Your task to perform on an android device: Open calendar and show me the first week of next month Image 0: 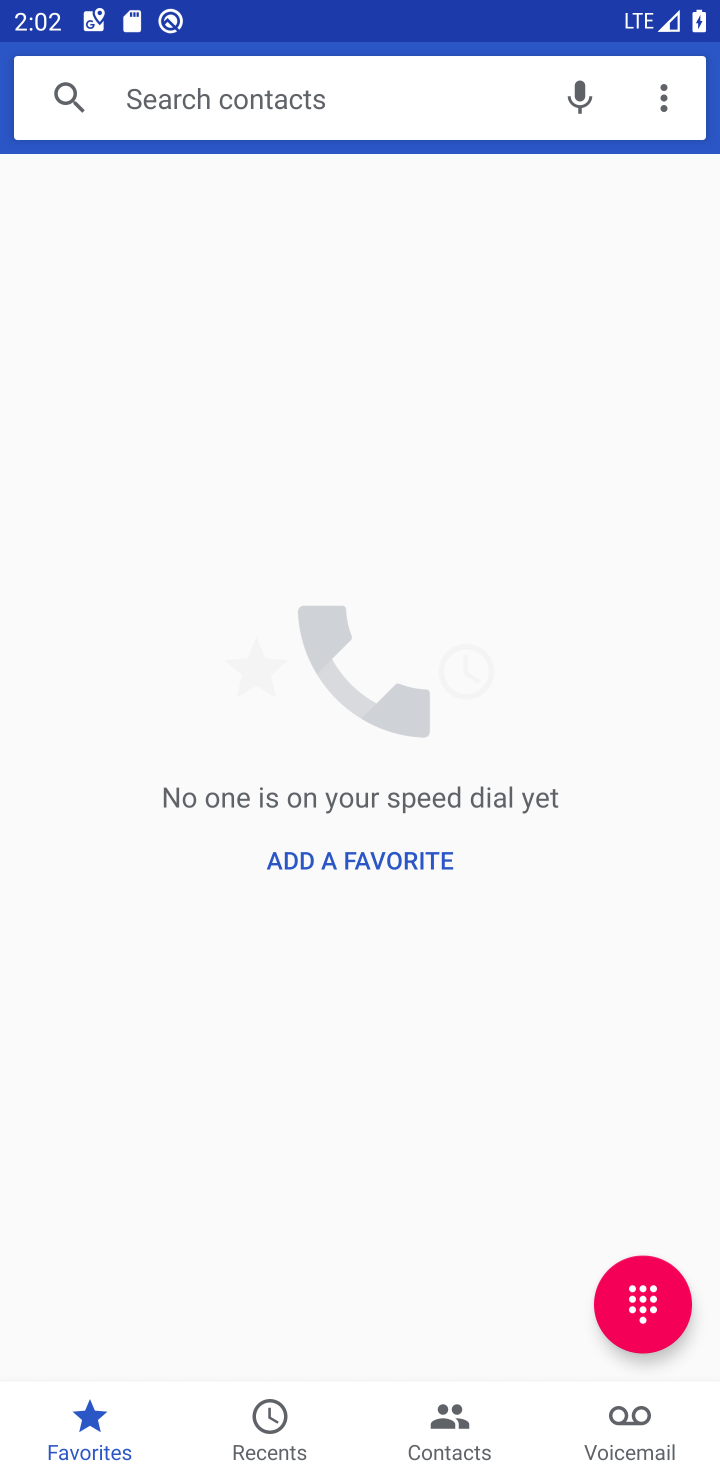
Step 0: press home button
Your task to perform on an android device: Open calendar and show me the first week of next month Image 1: 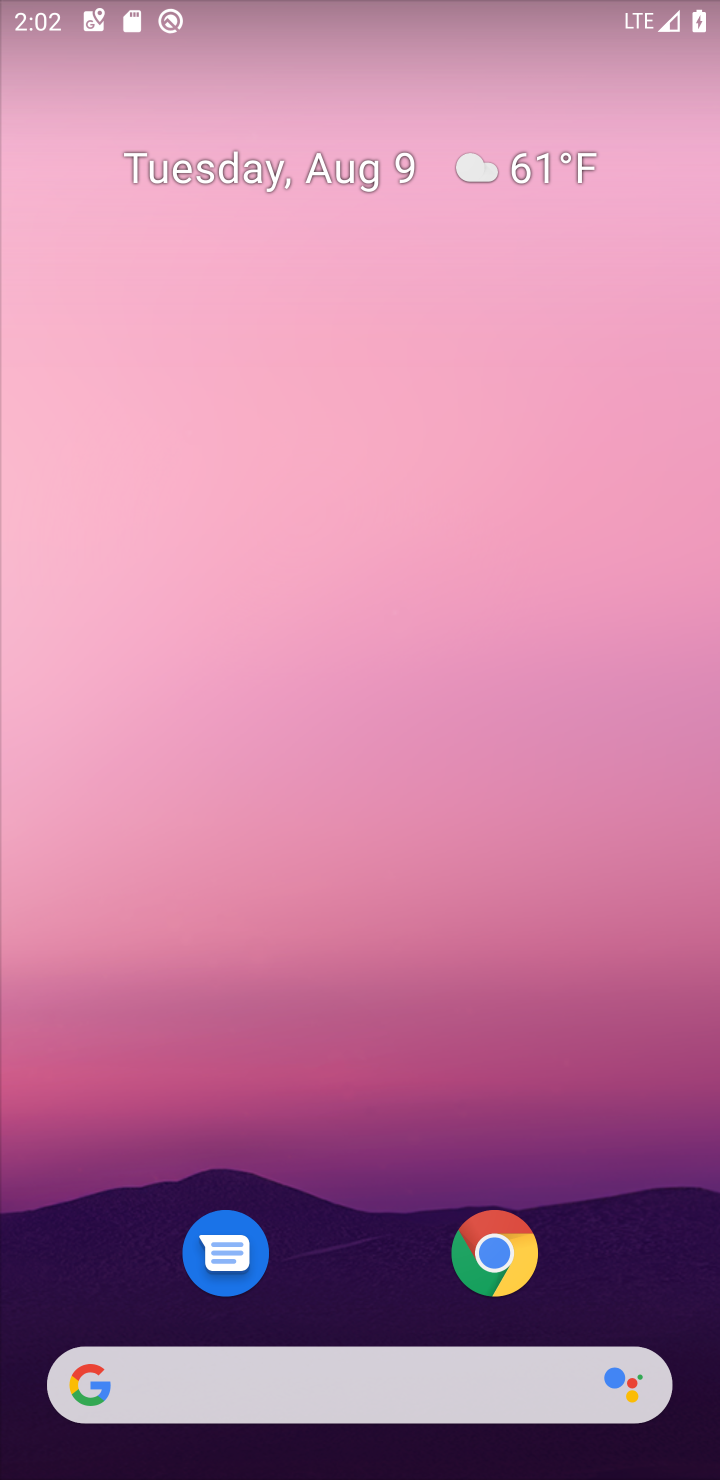
Step 1: drag from (571, 939) to (375, 2)
Your task to perform on an android device: Open calendar and show me the first week of next month Image 2: 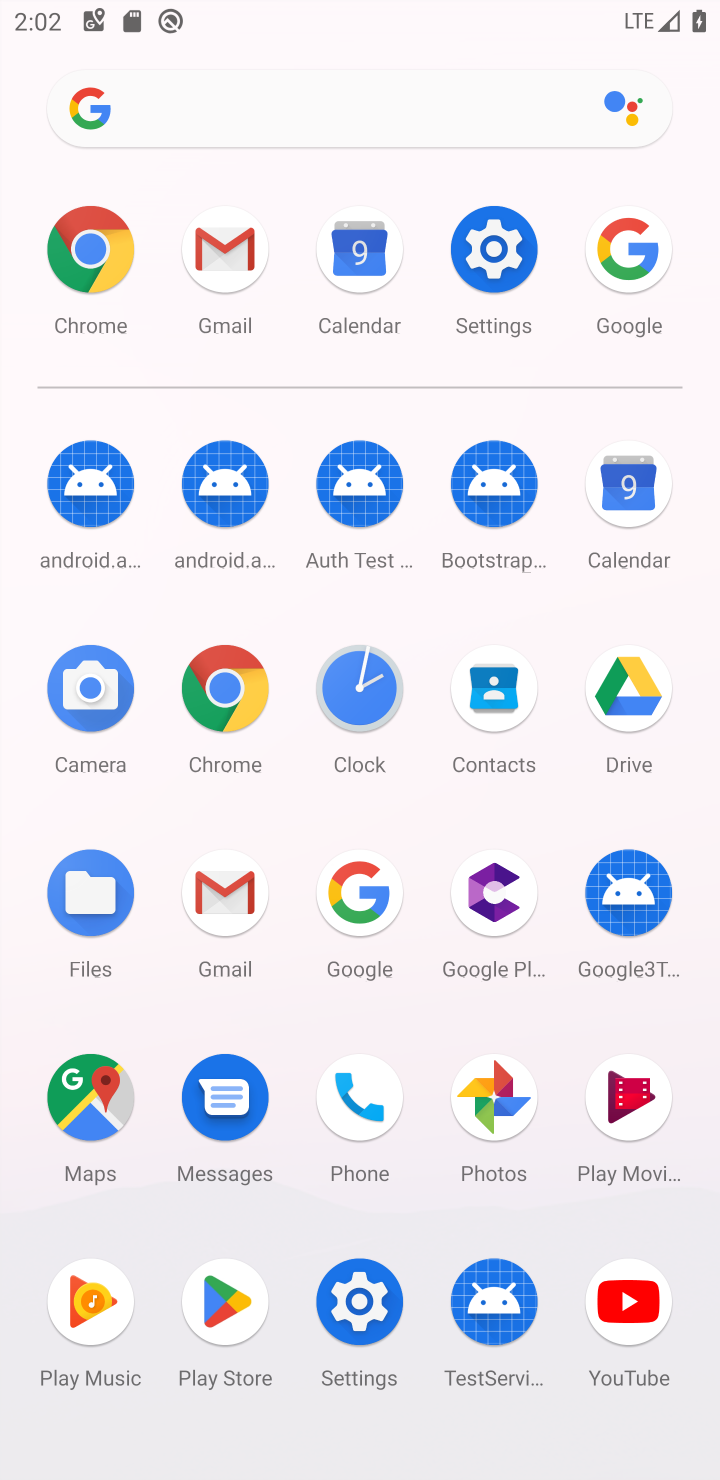
Step 2: click (613, 500)
Your task to perform on an android device: Open calendar and show me the first week of next month Image 3: 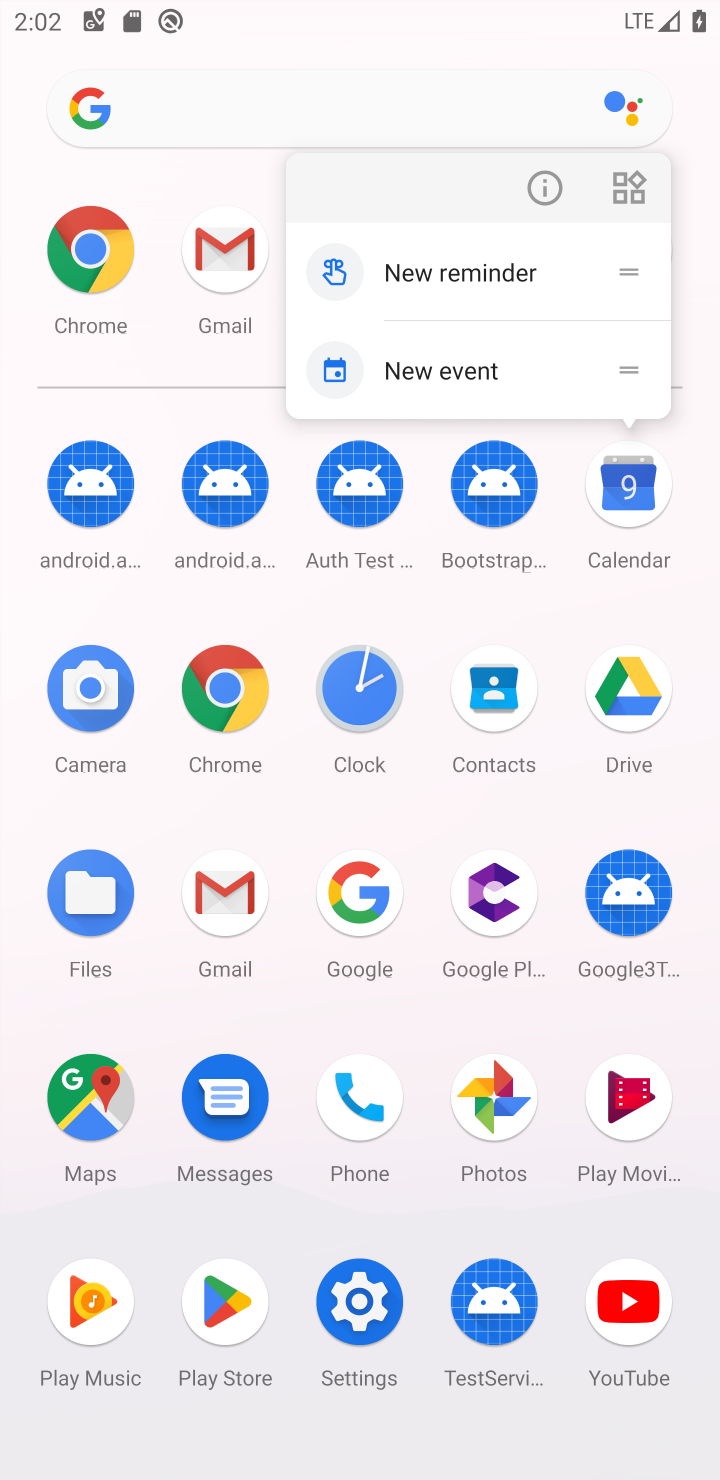
Step 3: click (613, 500)
Your task to perform on an android device: Open calendar and show me the first week of next month Image 4: 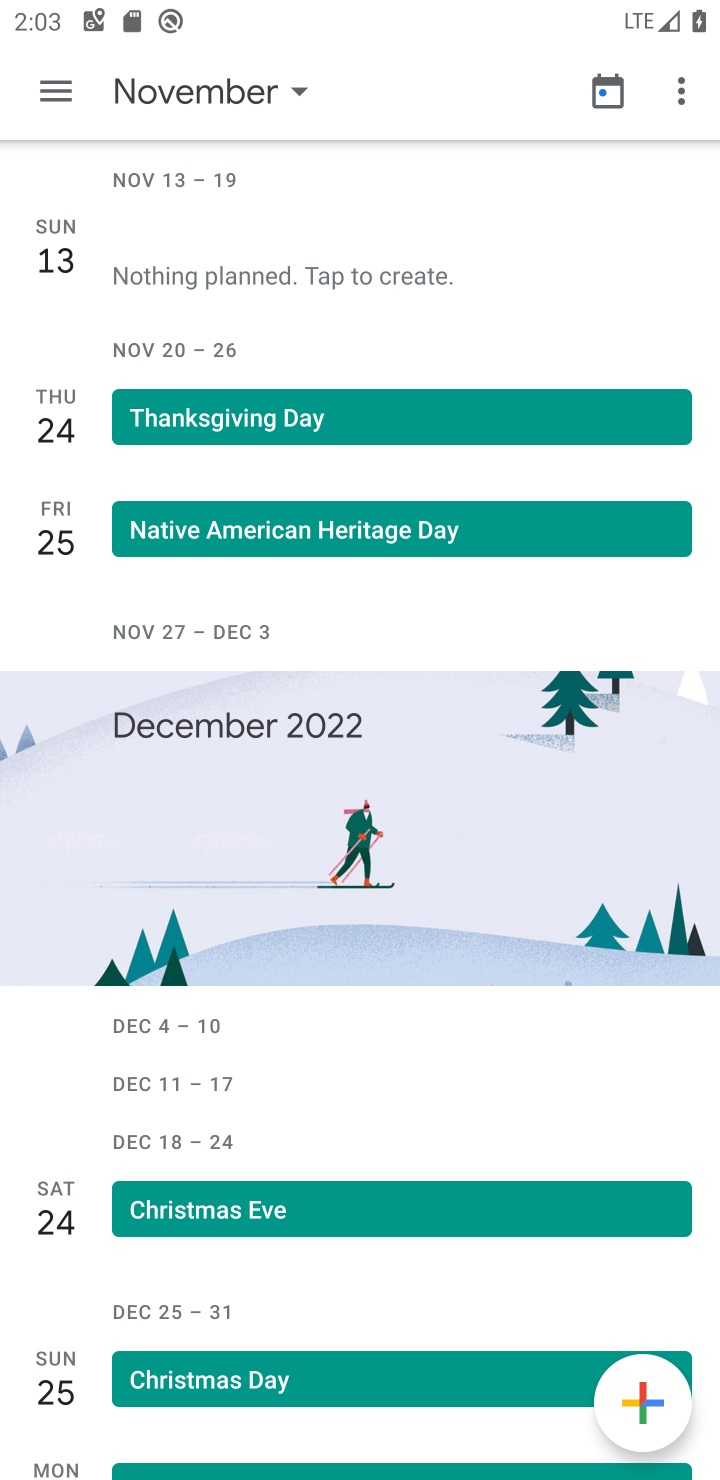
Step 4: click (167, 75)
Your task to perform on an android device: Open calendar and show me the first week of next month Image 5: 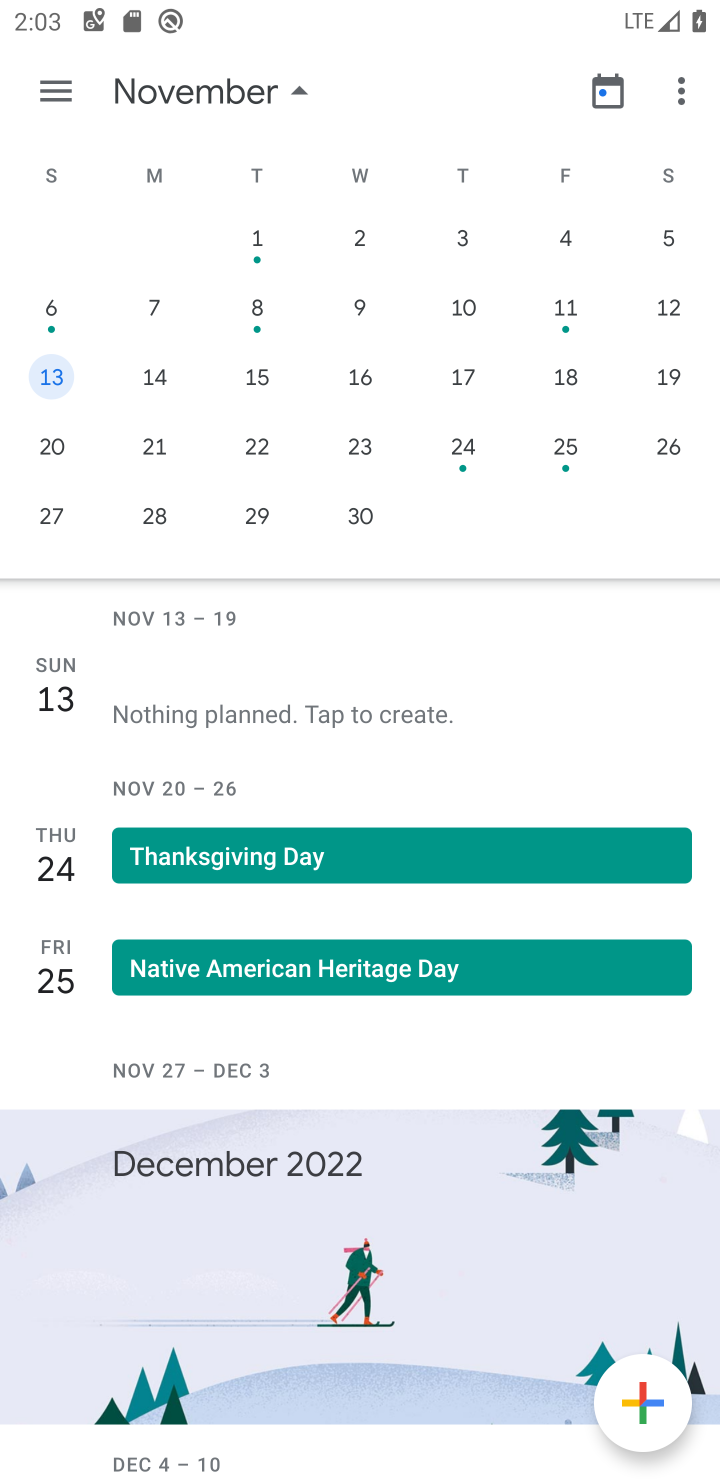
Step 5: drag from (666, 378) to (12, 508)
Your task to perform on an android device: Open calendar and show me the first week of next month Image 6: 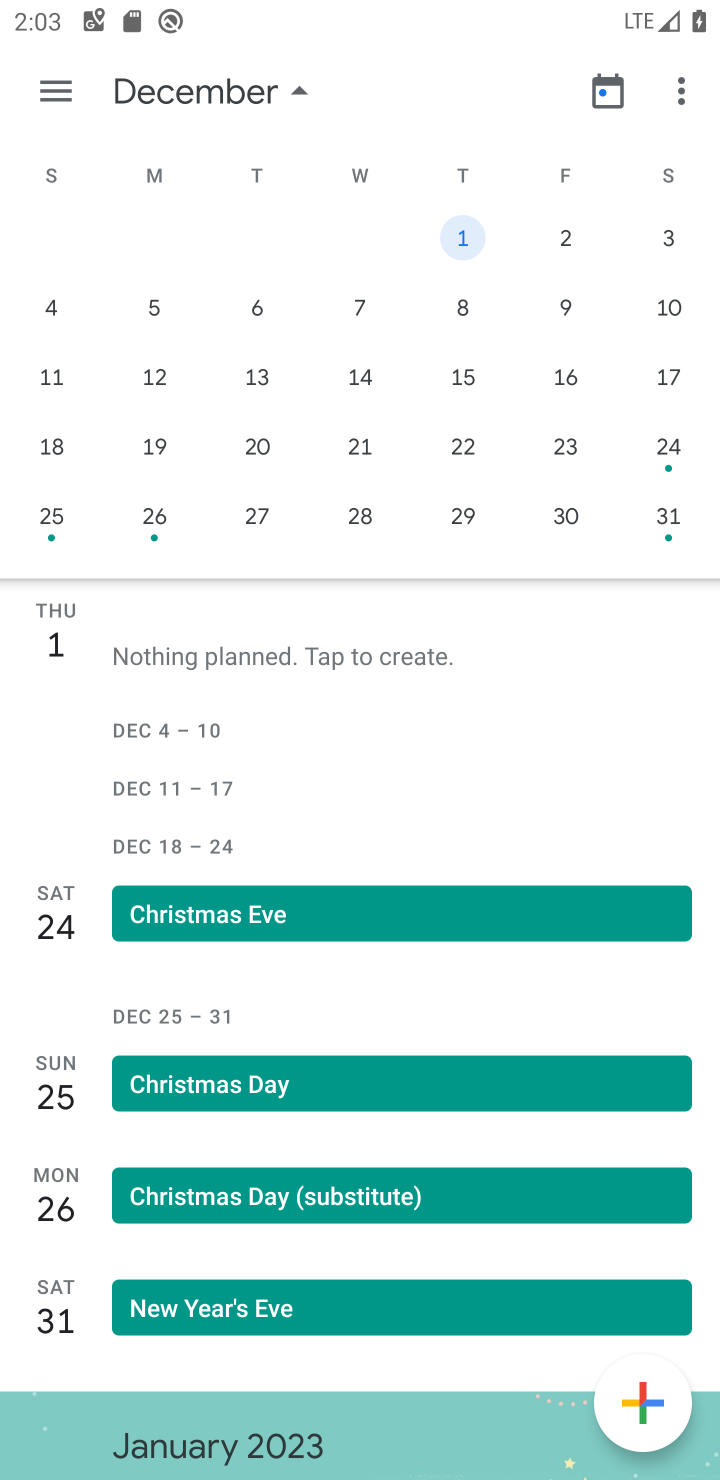
Step 6: click (41, 305)
Your task to perform on an android device: Open calendar and show me the first week of next month Image 7: 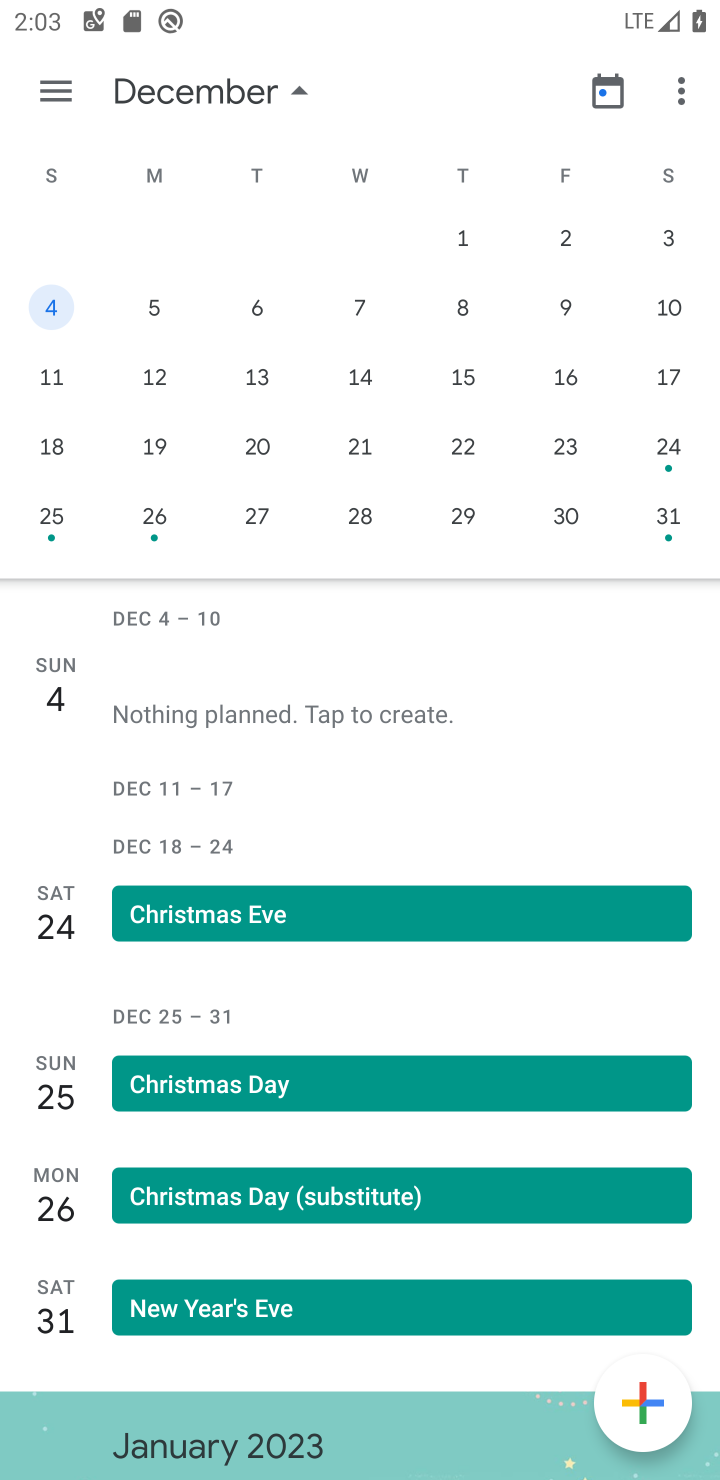
Step 7: task complete